Your task to perform on an android device: turn off location Image 0: 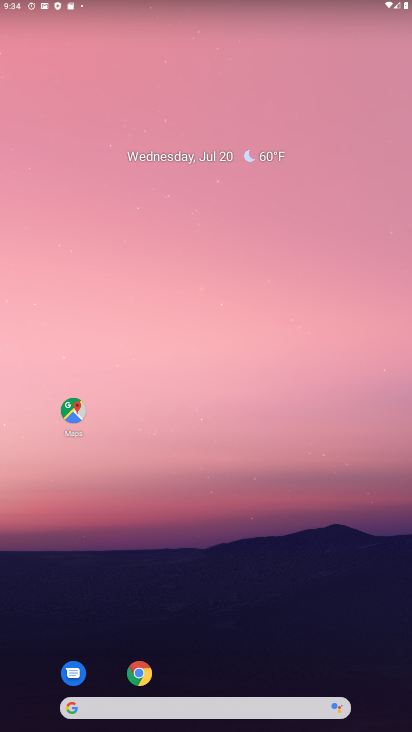
Step 0: drag from (221, 671) to (211, 179)
Your task to perform on an android device: turn off location Image 1: 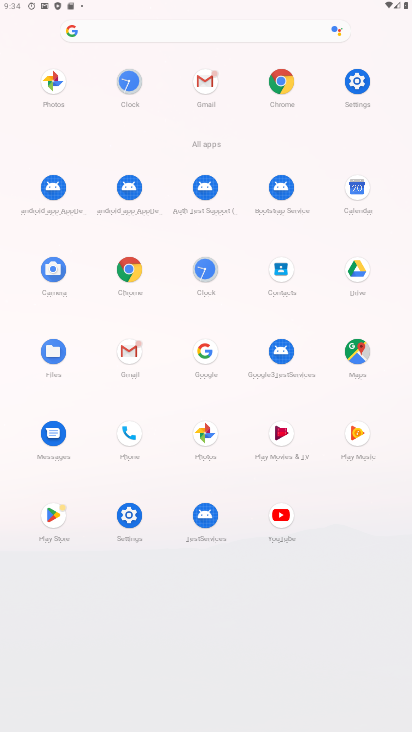
Step 1: click (356, 97)
Your task to perform on an android device: turn off location Image 2: 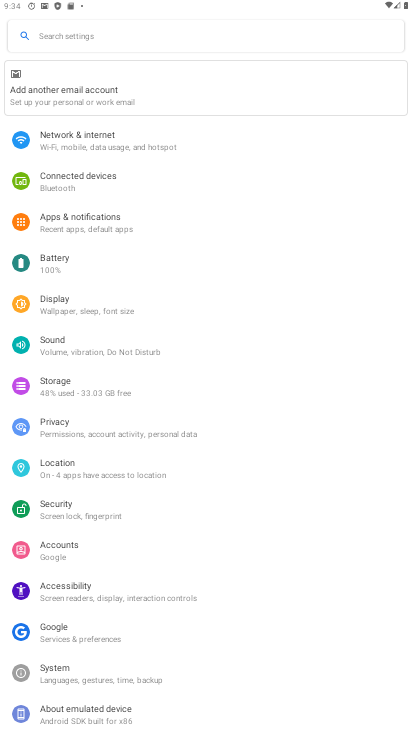
Step 2: click (125, 481)
Your task to perform on an android device: turn off location Image 3: 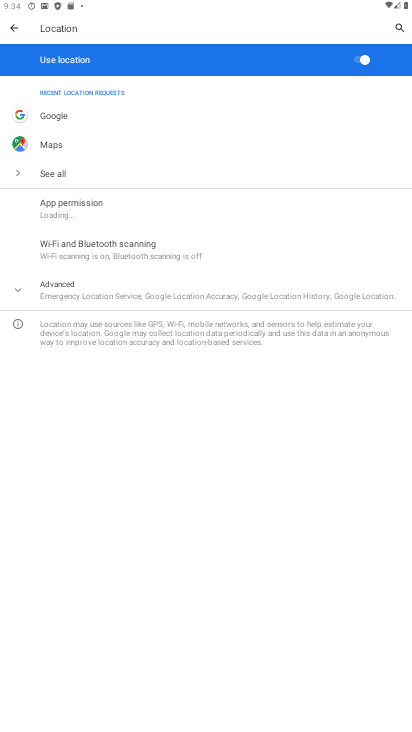
Step 3: click (330, 67)
Your task to perform on an android device: turn off location Image 4: 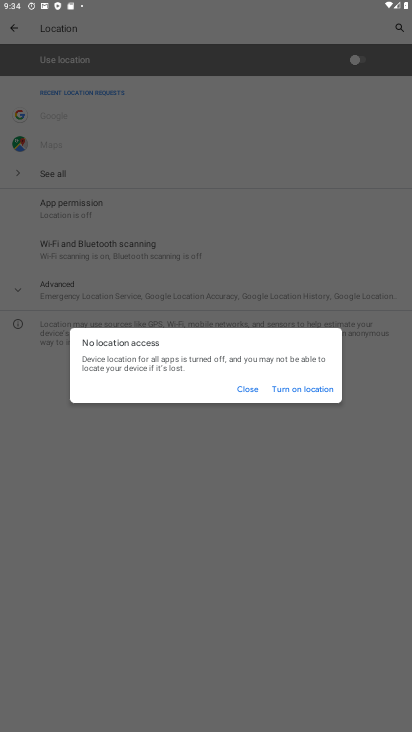
Step 4: task complete